Your task to perform on an android device: turn on the 24-hour format for clock Image 0: 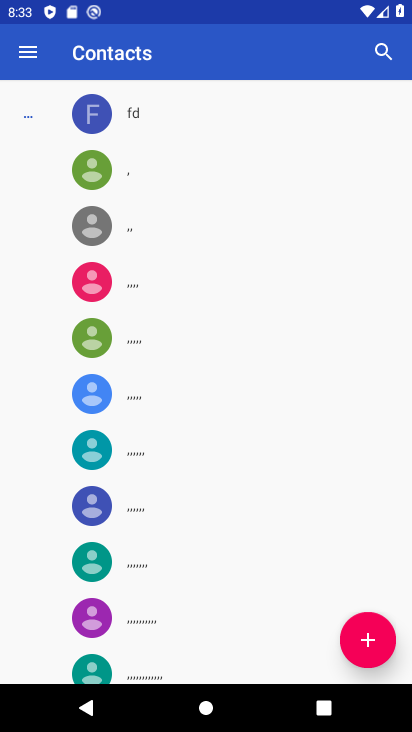
Step 0: press home button
Your task to perform on an android device: turn on the 24-hour format for clock Image 1: 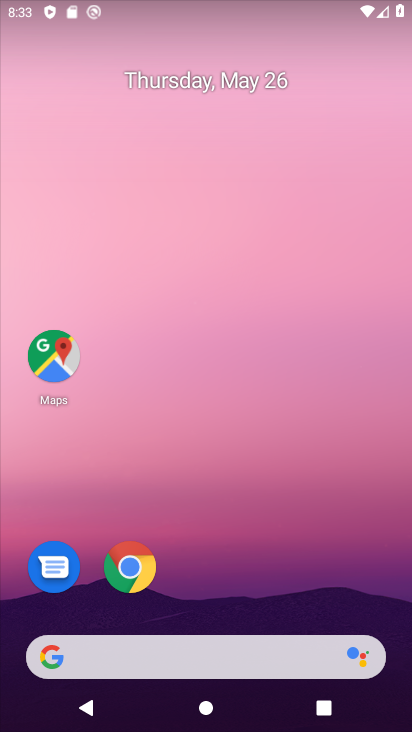
Step 1: drag from (287, 588) to (304, 122)
Your task to perform on an android device: turn on the 24-hour format for clock Image 2: 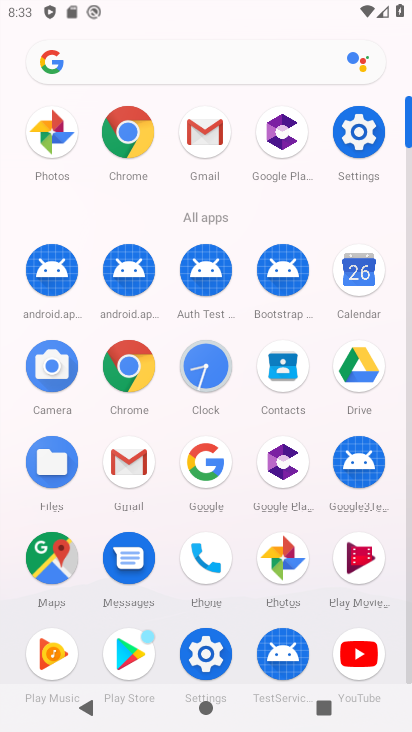
Step 2: click (202, 373)
Your task to perform on an android device: turn on the 24-hour format for clock Image 3: 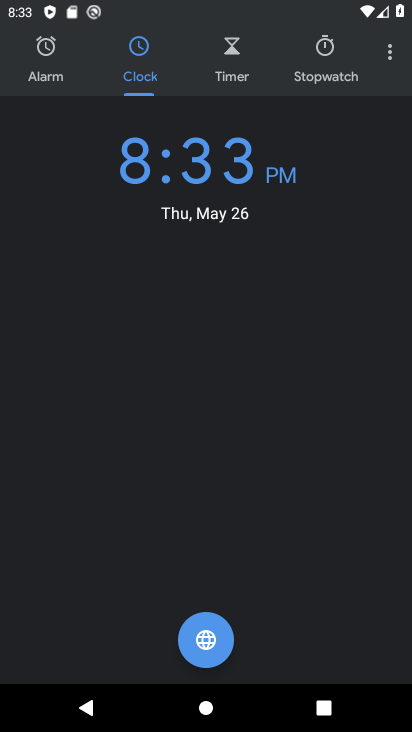
Step 3: click (398, 54)
Your task to perform on an android device: turn on the 24-hour format for clock Image 4: 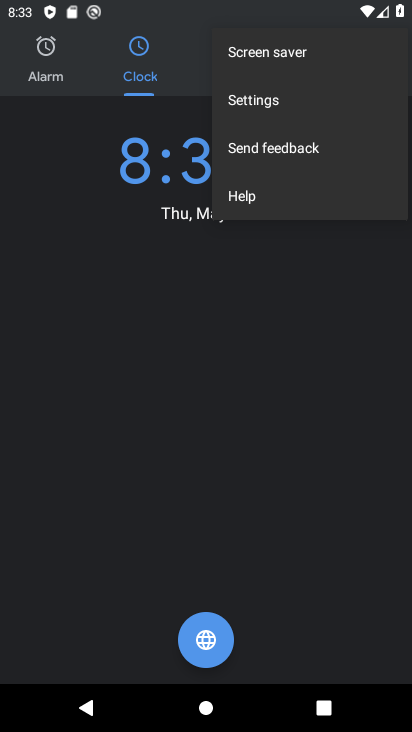
Step 4: click (296, 101)
Your task to perform on an android device: turn on the 24-hour format for clock Image 5: 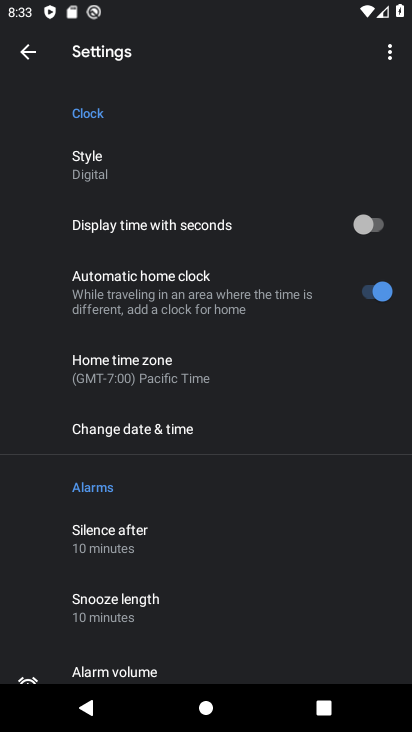
Step 5: click (161, 423)
Your task to perform on an android device: turn on the 24-hour format for clock Image 6: 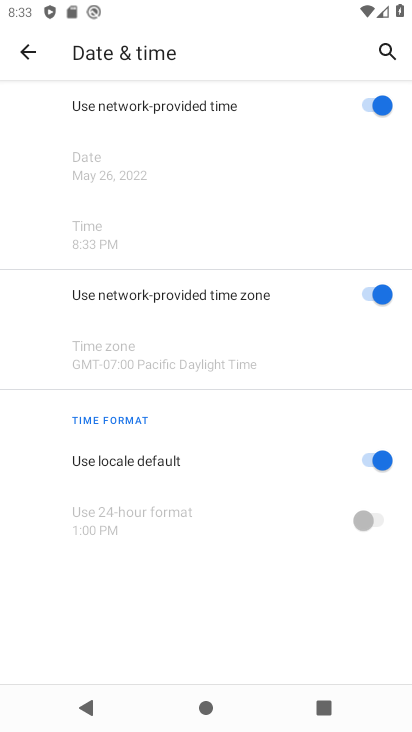
Step 6: click (372, 458)
Your task to perform on an android device: turn on the 24-hour format for clock Image 7: 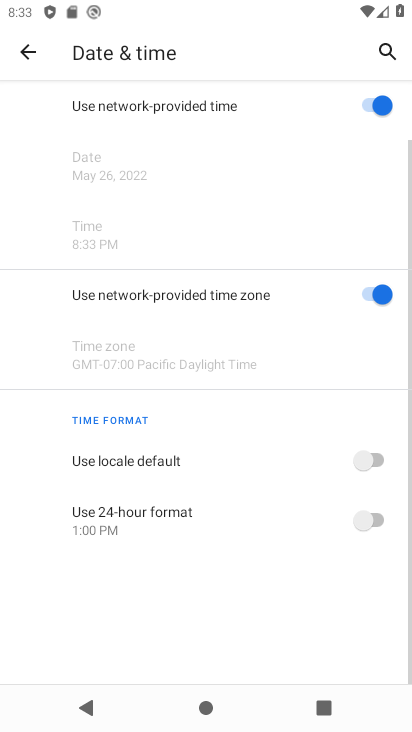
Step 7: click (379, 519)
Your task to perform on an android device: turn on the 24-hour format for clock Image 8: 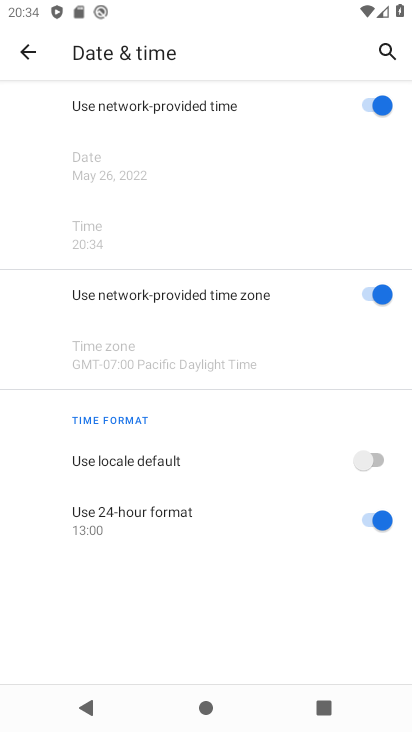
Step 8: task complete